Your task to perform on an android device: Add "macbook" to the cart on amazon.com Image 0: 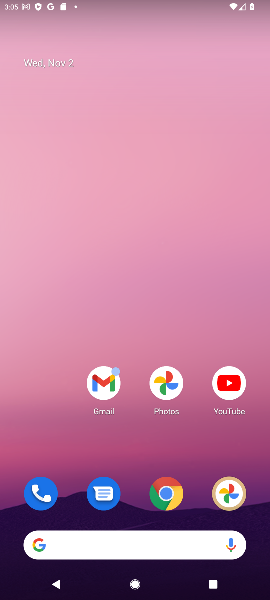
Step 0: drag from (74, 507) to (85, 125)
Your task to perform on an android device: Add "macbook" to the cart on amazon.com Image 1: 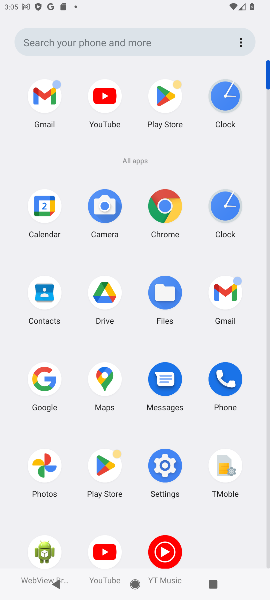
Step 1: click (45, 386)
Your task to perform on an android device: Add "macbook" to the cart on amazon.com Image 2: 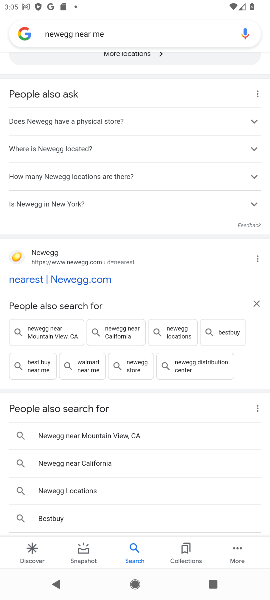
Step 2: click (122, 28)
Your task to perform on an android device: Add "macbook" to the cart on amazon.com Image 3: 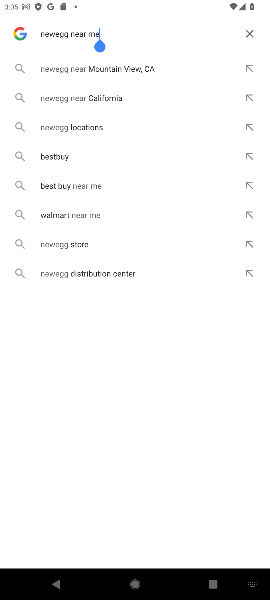
Step 3: click (252, 30)
Your task to perform on an android device: Add "macbook" to the cart on amazon.com Image 4: 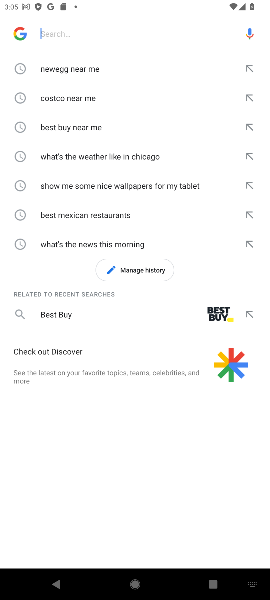
Step 4: click (70, 24)
Your task to perform on an android device: Add "macbook" to the cart on amazon.com Image 5: 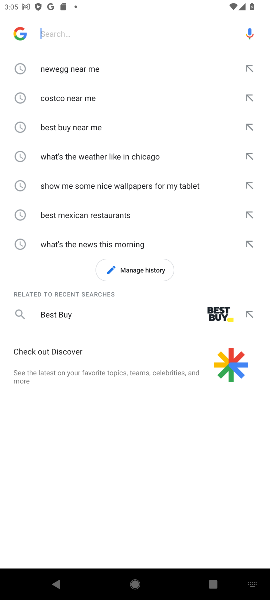
Step 5: type "amazon "
Your task to perform on an android device: Add "macbook" to the cart on amazon.com Image 6: 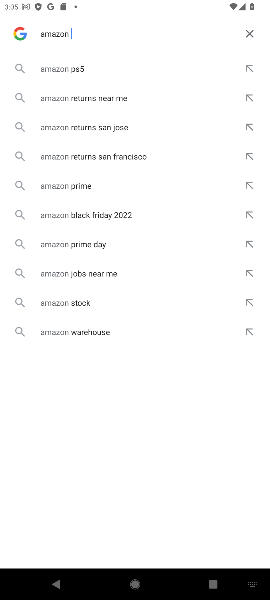
Step 6: click (61, 79)
Your task to perform on an android device: Add "macbook" to the cart on amazon.com Image 7: 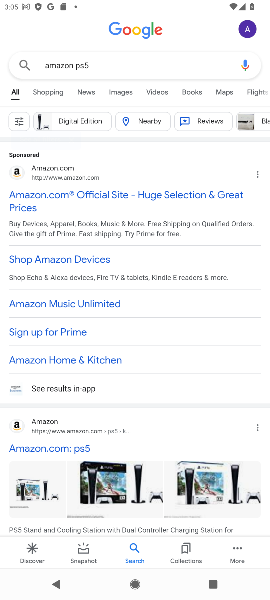
Step 7: drag from (135, 420) to (152, 140)
Your task to perform on an android device: Add "macbook" to the cart on amazon.com Image 8: 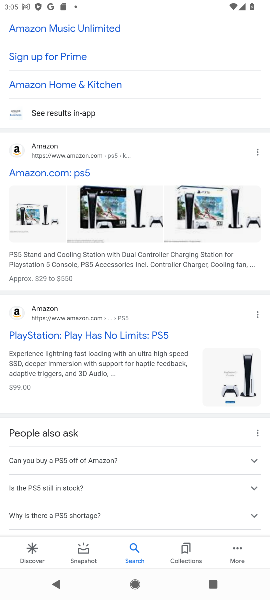
Step 8: press back button
Your task to perform on an android device: Add "macbook" to the cart on amazon.com Image 9: 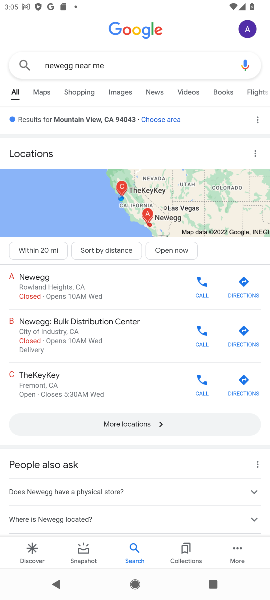
Step 9: click (107, 48)
Your task to perform on an android device: Add "macbook" to the cart on amazon.com Image 10: 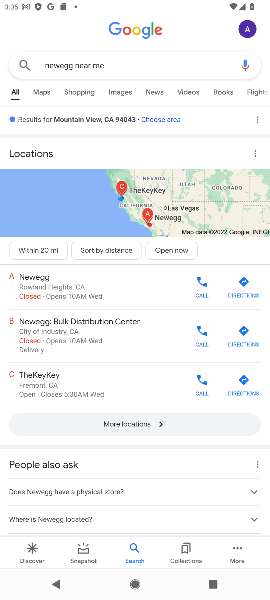
Step 10: click (106, 61)
Your task to perform on an android device: Add "macbook" to the cart on amazon.com Image 11: 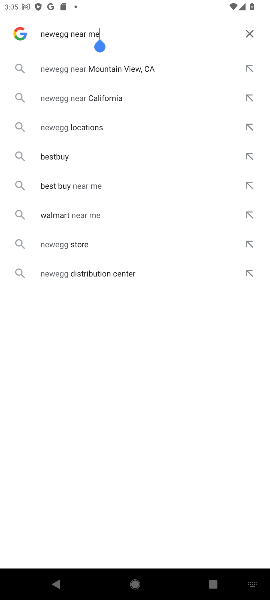
Step 11: click (246, 29)
Your task to perform on an android device: Add "macbook" to the cart on amazon.com Image 12: 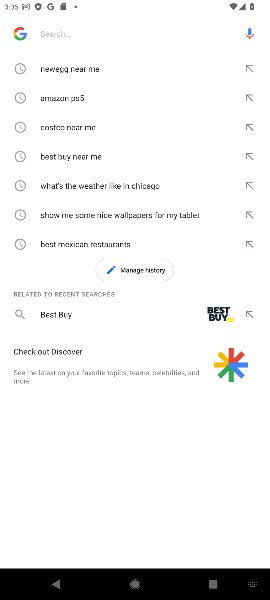
Step 12: click (64, 27)
Your task to perform on an android device: Add "macbook" to the cart on amazon.com Image 13: 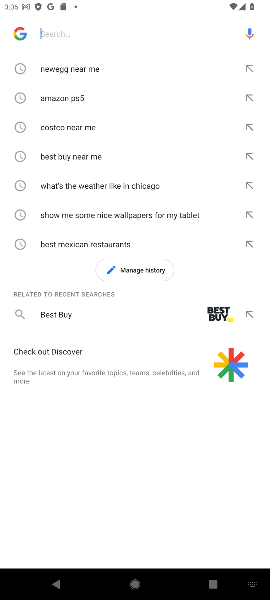
Step 13: click (59, 37)
Your task to perform on an android device: Add "macbook" to the cart on amazon.com Image 14: 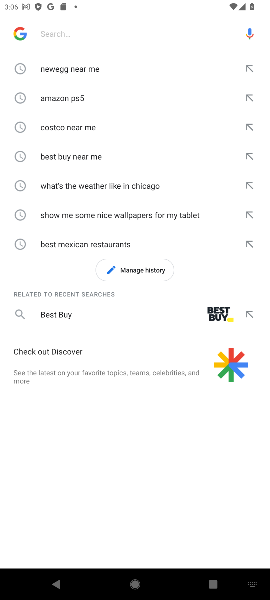
Step 14: type "amazon.com "
Your task to perform on an android device: Add "macbook" to the cart on amazon.com Image 15: 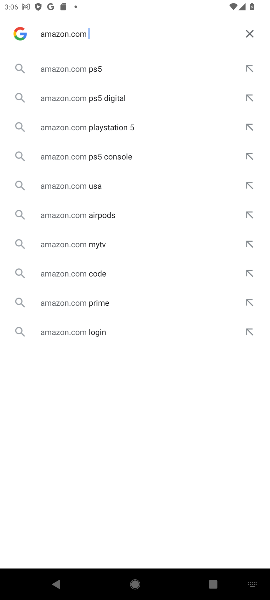
Step 15: click (83, 334)
Your task to perform on an android device: Add "macbook" to the cart on amazon.com Image 16: 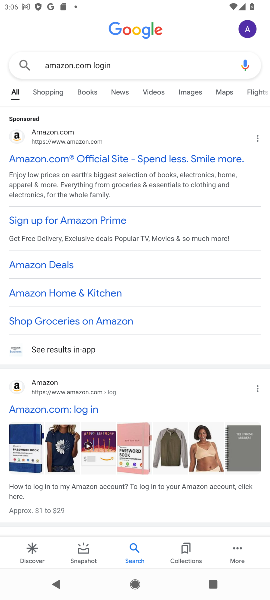
Step 16: click (18, 384)
Your task to perform on an android device: Add "macbook" to the cart on amazon.com Image 17: 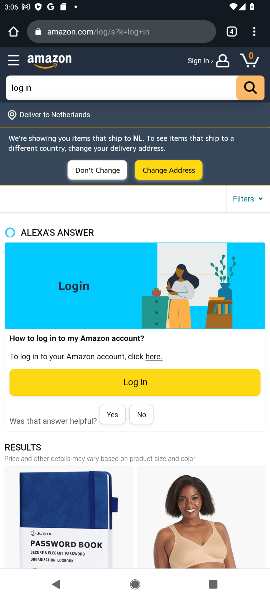
Step 17: click (100, 82)
Your task to perform on an android device: Add "macbook" to the cart on amazon.com Image 18: 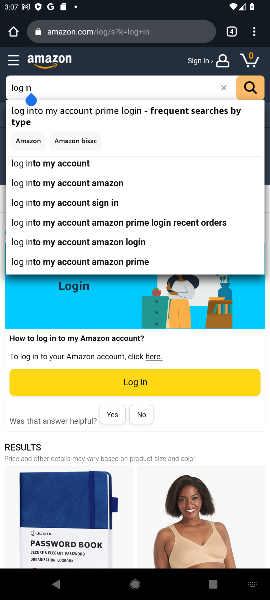
Step 18: click (78, 95)
Your task to perform on an android device: Add "macbook" to the cart on amazon.com Image 19: 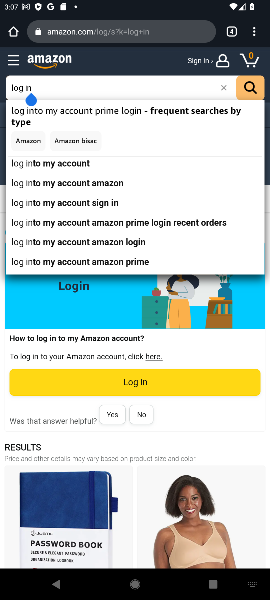
Step 19: click (228, 91)
Your task to perform on an android device: Add "macbook" to the cart on amazon.com Image 20: 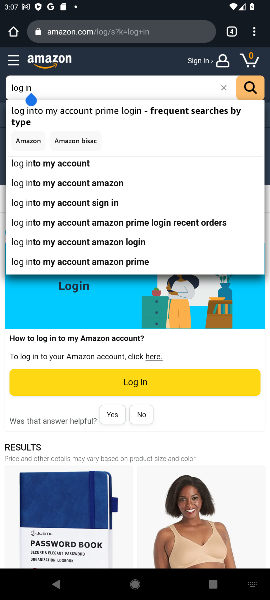
Step 20: click (220, 81)
Your task to perform on an android device: Add "macbook" to the cart on amazon.com Image 21: 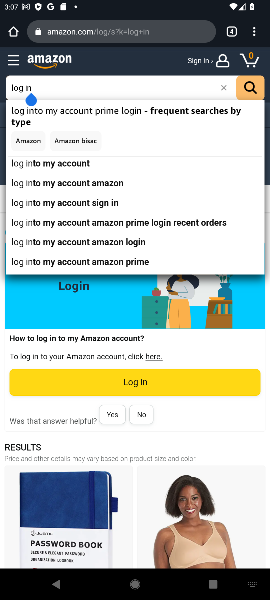
Step 21: click (219, 86)
Your task to perform on an android device: Add "macbook" to the cart on amazon.com Image 22: 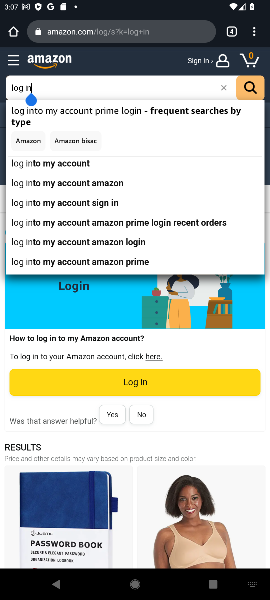
Step 22: click (219, 86)
Your task to perform on an android device: Add "macbook" to the cart on amazon.com Image 23: 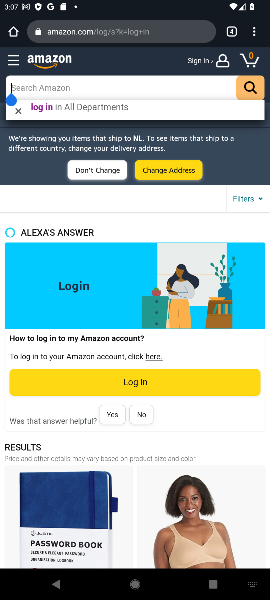
Step 23: click (58, 82)
Your task to perform on an android device: Add "macbook" to the cart on amazon.com Image 24: 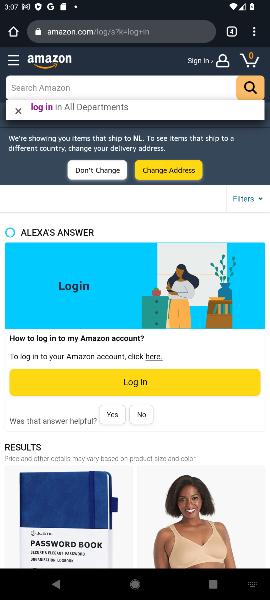
Step 24: type "macbook "
Your task to perform on an android device: Add "macbook" to the cart on amazon.com Image 25: 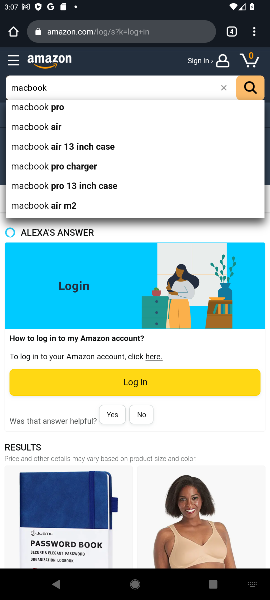
Step 25: click (40, 109)
Your task to perform on an android device: Add "macbook" to the cart on amazon.com Image 26: 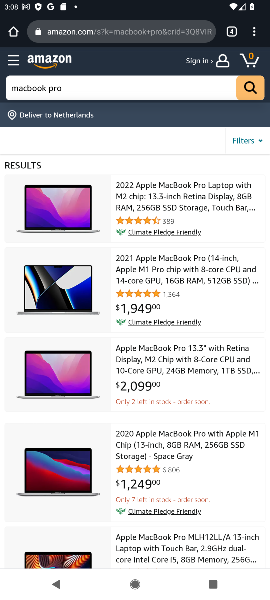
Step 26: click (172, 192)
Your task to perform on an android device: Add "macbook" to the cart on amazon.com Image 27: 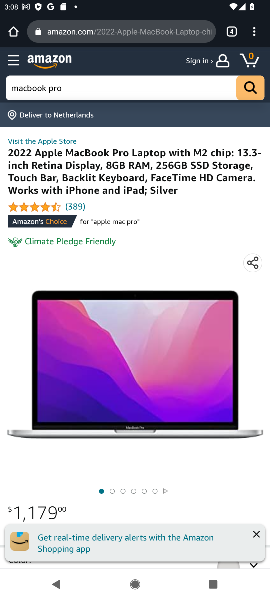
Step 27: drag from (95, 451) to (119, 158)
Your task to perform on an android device: Add "macbook" to the cart on amazon.com Image 28: 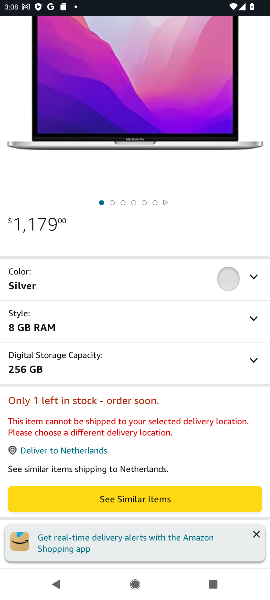
Step 28: drag from (123, 449) to (130, 285)
Your task to perform on an android device: Add "macbook" to the cart on amazon.com Image 29: 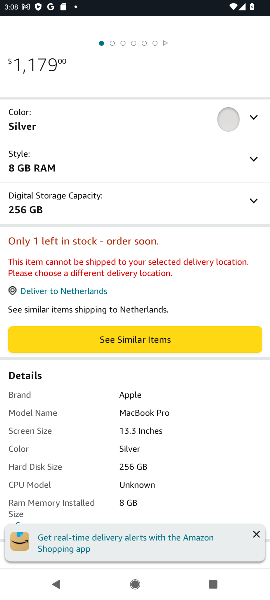
Step 29: drag from (118, 472) to (168, 136)
Your task to perform on an android device: Add "macbook" to the cart on amazon.com Image 30: 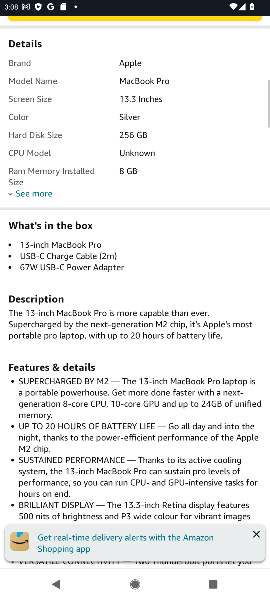
Step 30: drag from (136, 468) to (172, 526)
Your task to perform on an android device: Add "macbook" to the cart on amazon.com Image 31: 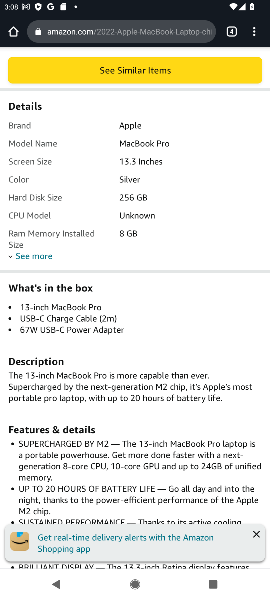
Step 31: drag from (103, 148) to (104, 376)
Your task to perform on an android device: Add "macbook" to the cart on amazon.com Image 32: 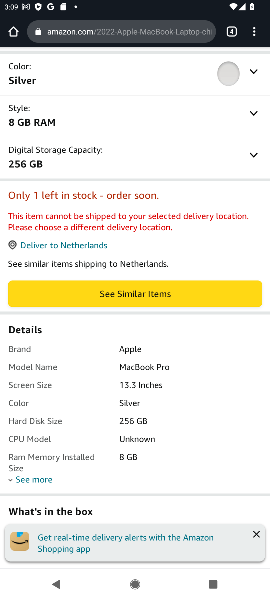
Step 32: click (109, 297)
Your task to perform on an android device: Add "macbook" to the cart on amazon.com Image 33: 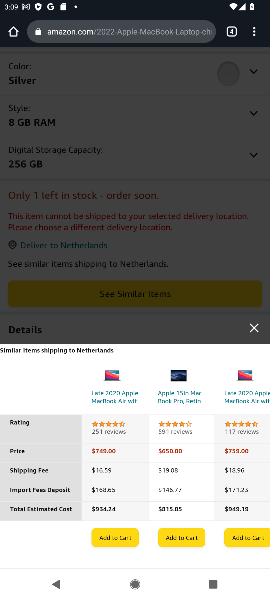
Step 33: click (112, 539)
Your task to perform on an android device: Add "macbook" to the cart on amazon.com Image 34: 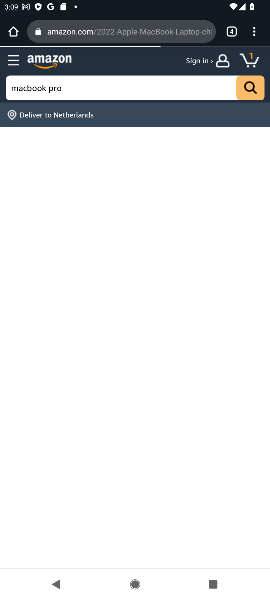
Step 34: task complete